Your task to perform on an android device: open app "Reddit" (install if not already installed) and go to login screen Image 0: 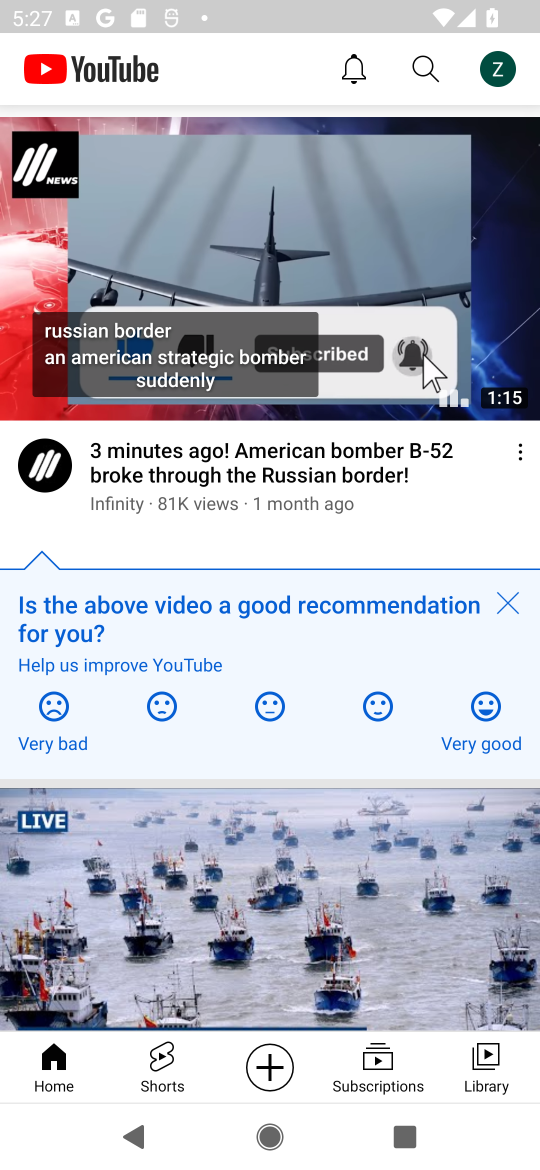
Step 0: press home button
Your task to perform on an android device: open app "Reddit" (install if not already installed) and go to login screen Image 1: 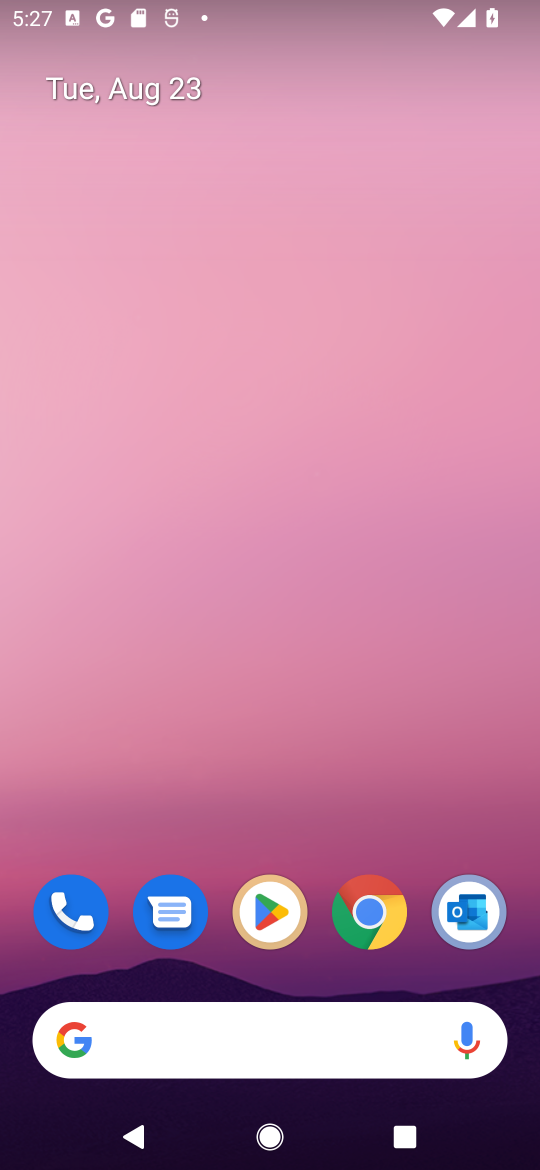
Step 1: drag from (172, 996) to (179, 363)
Your task to perform on an android device: open app "Reddit" (install if not already installed) and go to login screen Image 2: 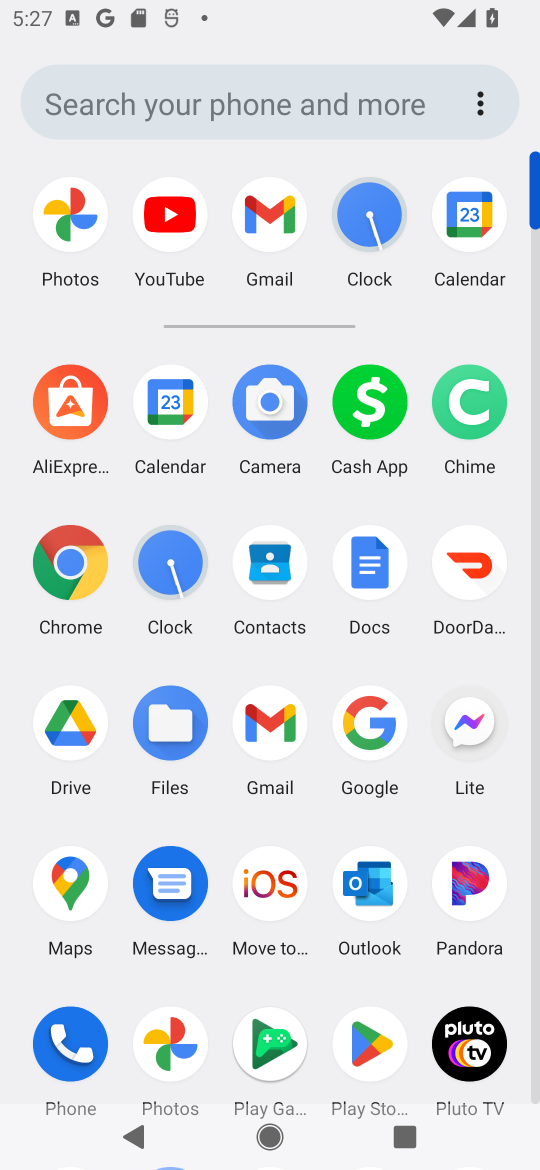
Step 2: click (355, 1037)
Your task to perform on an android device: open app "Reddit" (install if not already installed) and go to login screen Image 3: 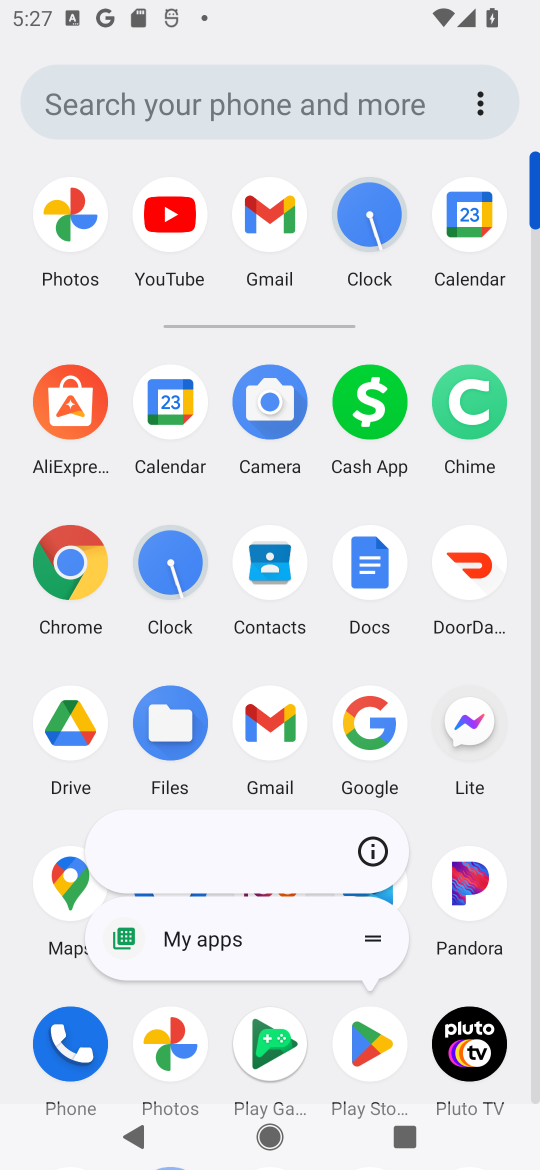
Step 3: click (370, 1051)
Your task to perform on an android device: open app "Reddit" (install if not already installed) and go to login screen Image 4: 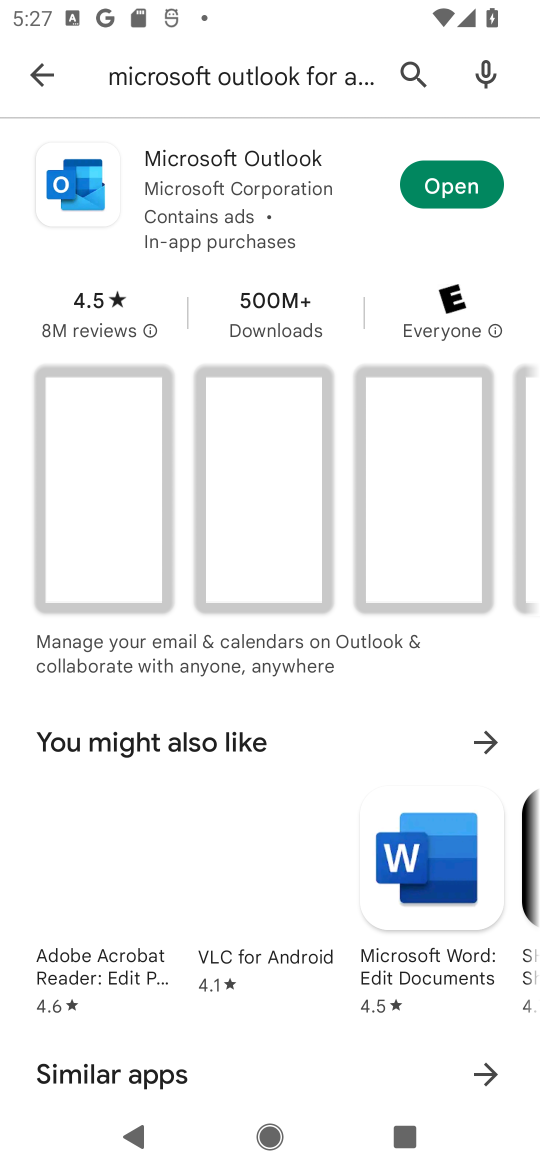
Step 4: click (47, 87)
Your task to perform on an android device: open app "Reddit" (install if not already installed) and go to login screen Image 5: 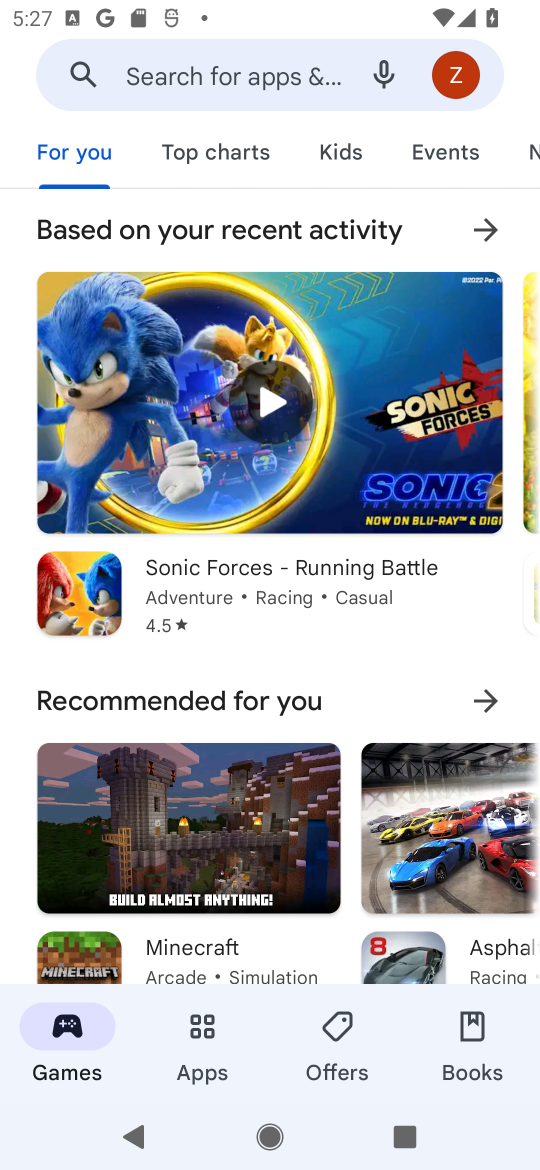
Step 5: click (239, 70)
Your task to perform on an android device: open app "Reddit" (install if not already installed) and go to login screen Image 6: 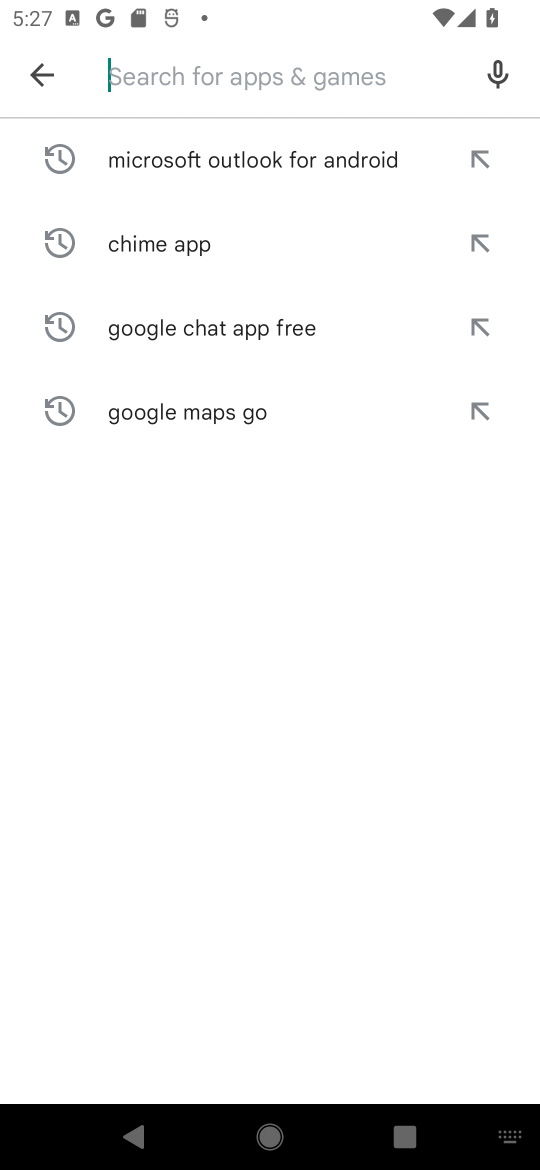
Step 6: type "Reddit "
Your task to perform on an android device: open app "Reddit" (install if not already installed) and go to login screen Image 7: 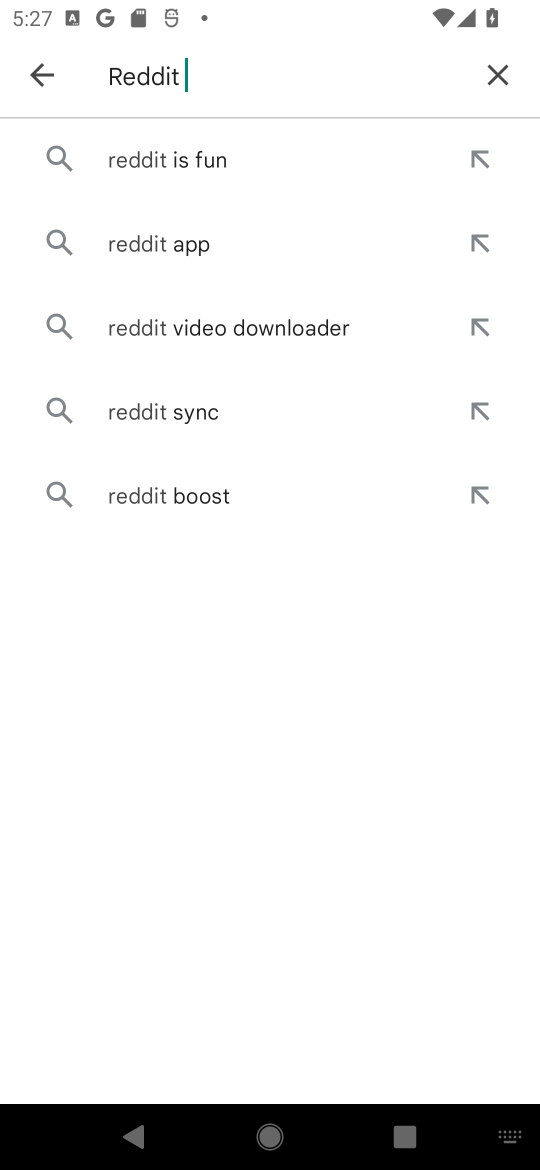
Step 7: click (201, 233)
Your task to perform on an android device: open app "Reddit" (install if not already installed) and go to login screen Image 8: 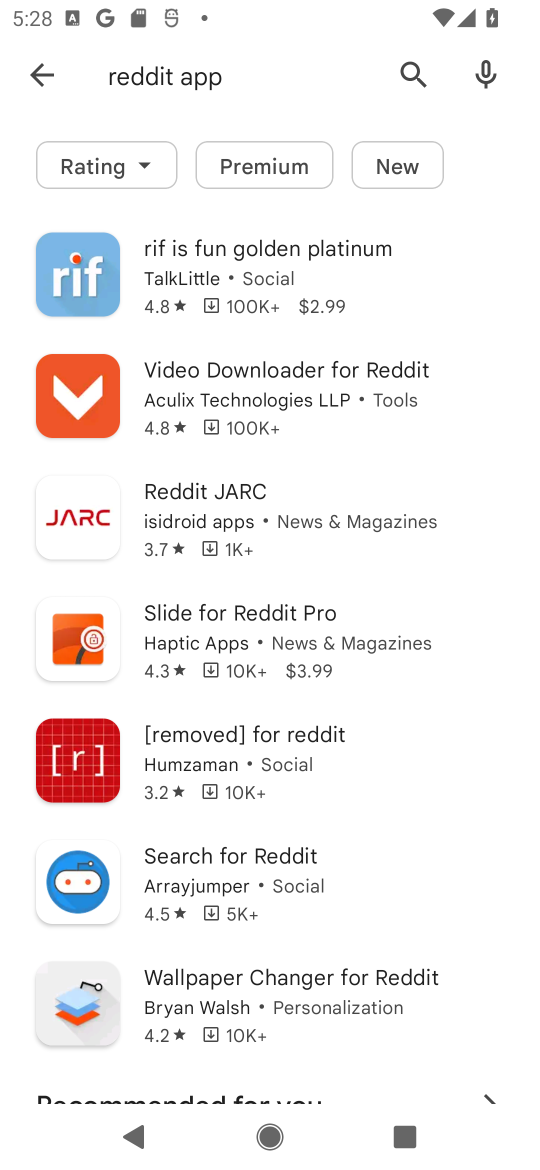
Step 8: click (255, 511)
Your task to perform on an android device: open app "Reddit" (install if not already installed) and go to login screen Image 9: 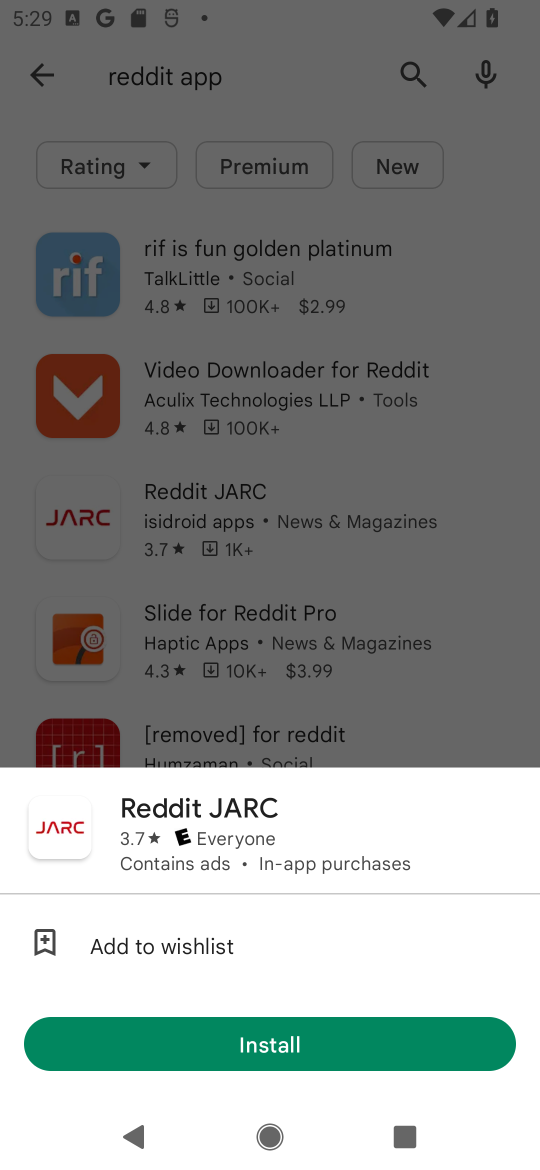
Step 9: click (239, 1015)
Your task to perform on an android device: open app "Reddit" (install if not already installed) and go to login screen Image 10: 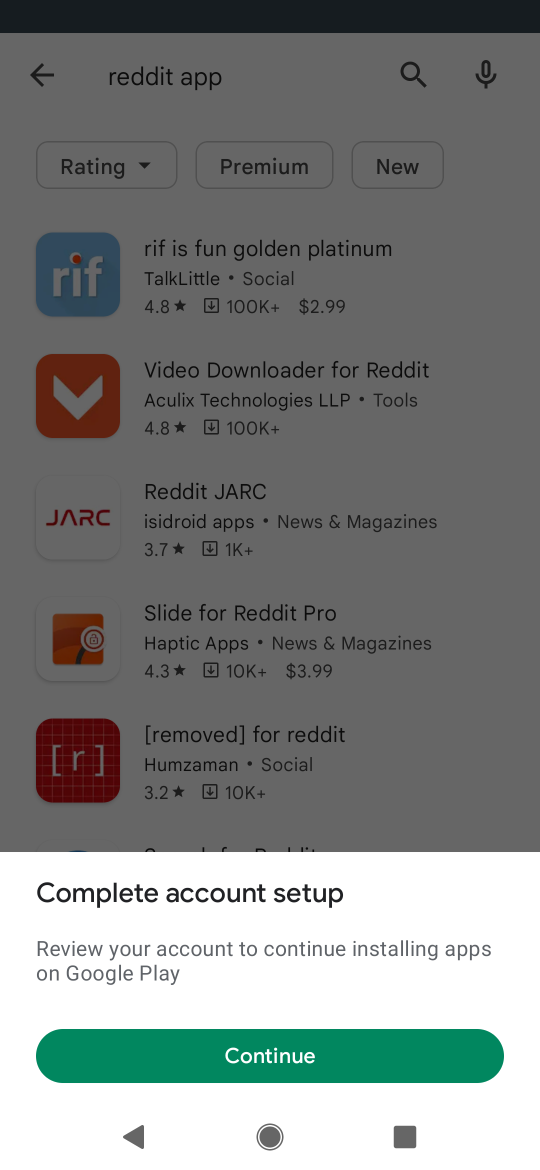
Step 10: click (377, 1052)
Your task to perform on an android device: open app "Reddit" (install if not already installed) and go to login screen Image 11: 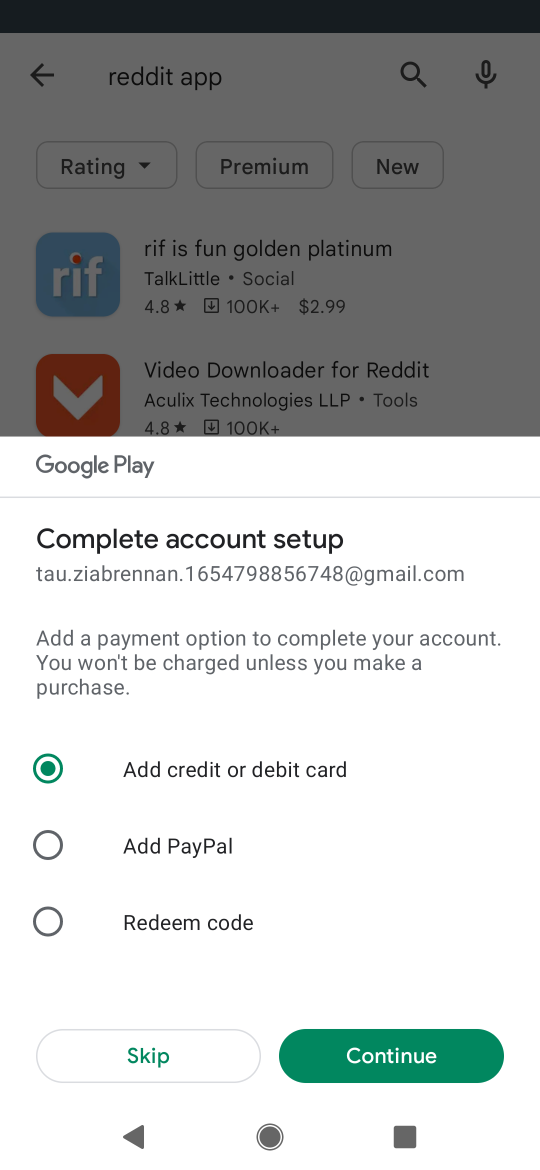
Step 11: task complete